Your task to perform on an android device: Open Google Chrome and click the shortcut for Amazon.com Image 0: 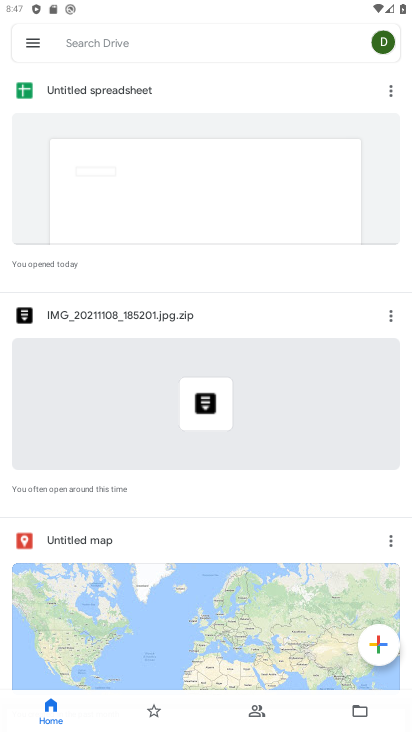
Step 0: press home button
Your task to perform on an android device: Open Google Chrome and click the shortcut for Amazon.com Image 1: 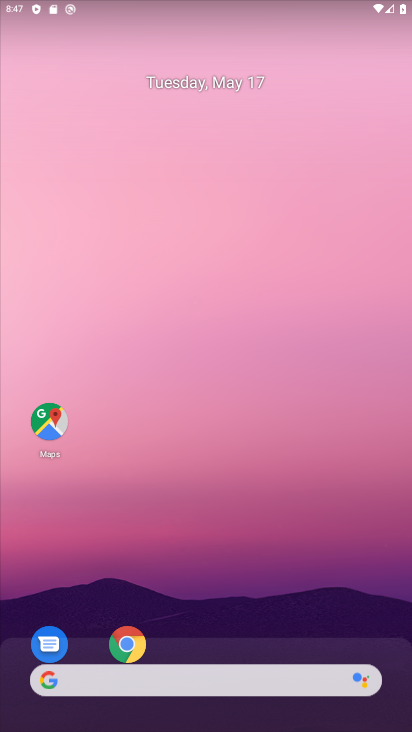
Step 1: click (125, 640)
Your task to perform on an android device: Open Google Chrome and click the shortcut for Amazon.com Image 2: 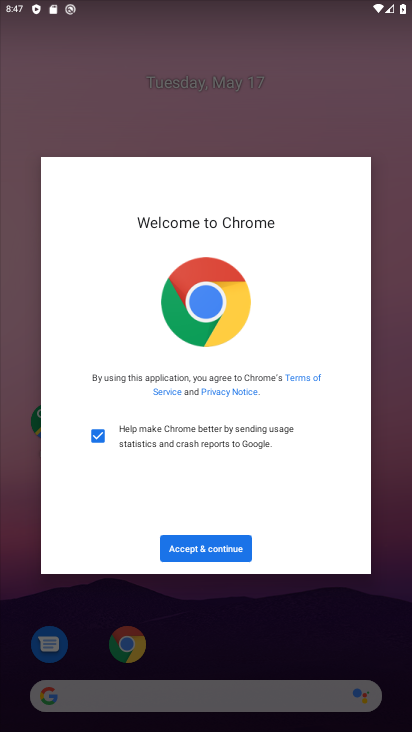
Step 2: click (195, 550)
Your task to perform on an android device: Open Google Chrome and click the shortcut for Amazon.com Image 3: 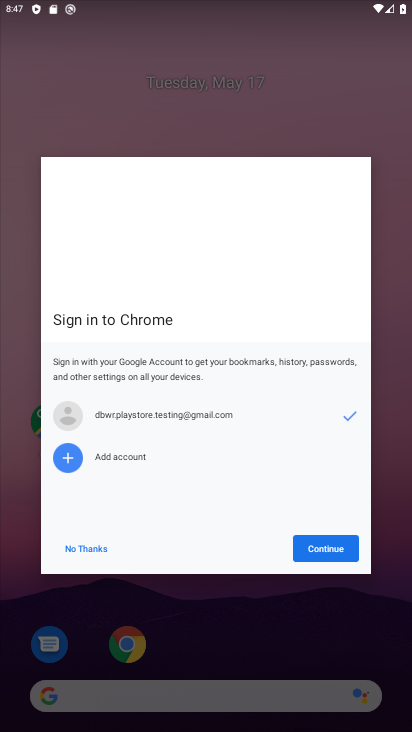
Step 3: click (328, 551)
Your task to perform on an android device: Open Google Chrome and click the shortcut for Amazon.com Image 4: 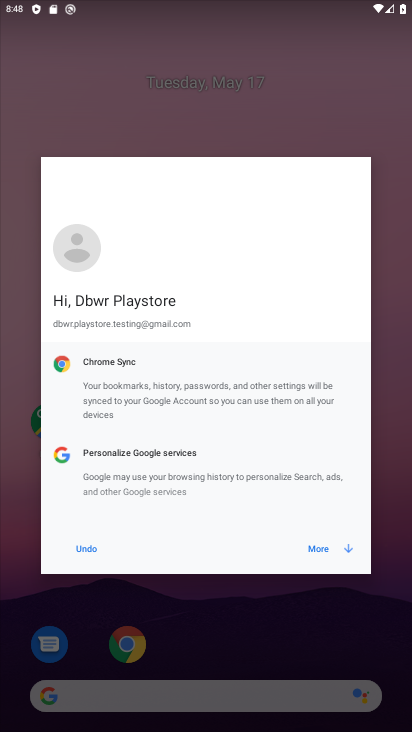
Step 4: click (323, 548)
Your task to perform on an android device: Open Google Chrome and click the shortcut for Amazon.com Image 5: 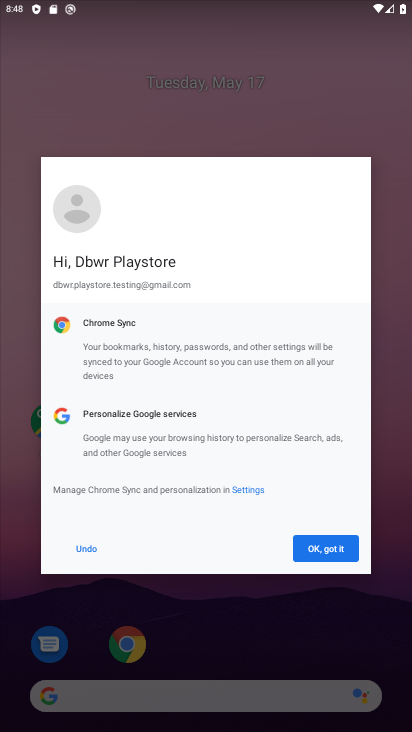
Step 5: click (340, 553)
Your task to perform on an android device: Open Google Chrome and click the shortcut for Amazon.com Image 6: 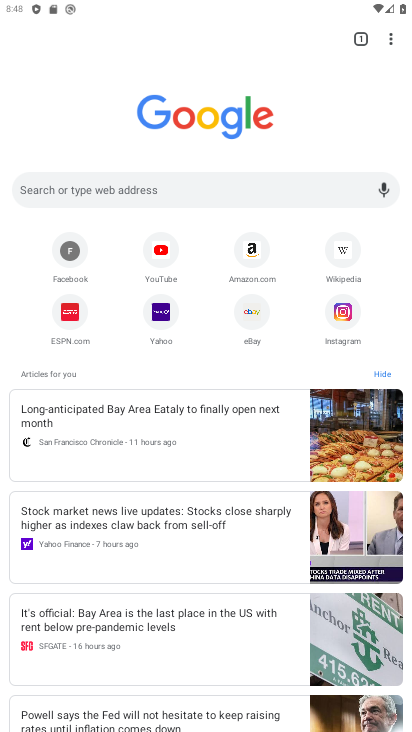
Step 6: click (257, 254)
Your task to perform on an android device: Open Google Chrome and click the shortcut for Amazon.com Image 7: 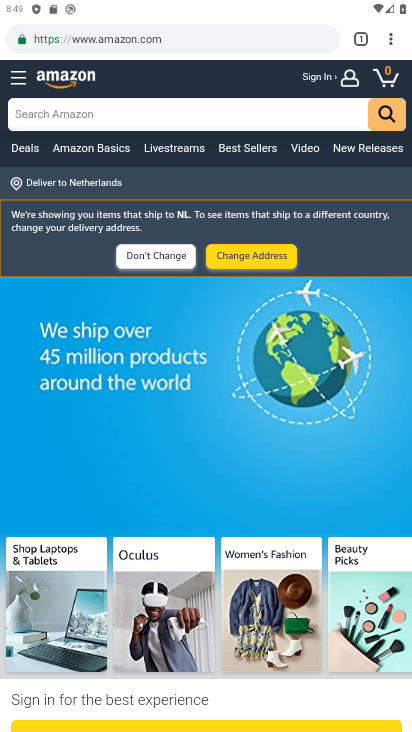
Step 7: task complete